Your task to perform on an android device: delete browsing data in the chrome app Image 0: 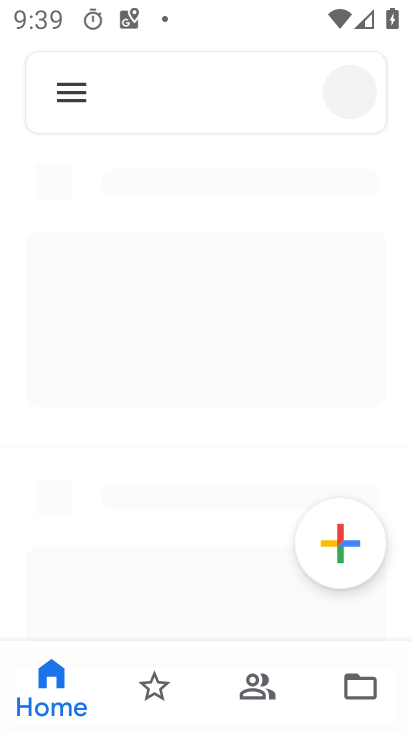
Step 0: click (250, 558)
Your task to perform on an android device: delete browsing data in the chrome app Image 1: 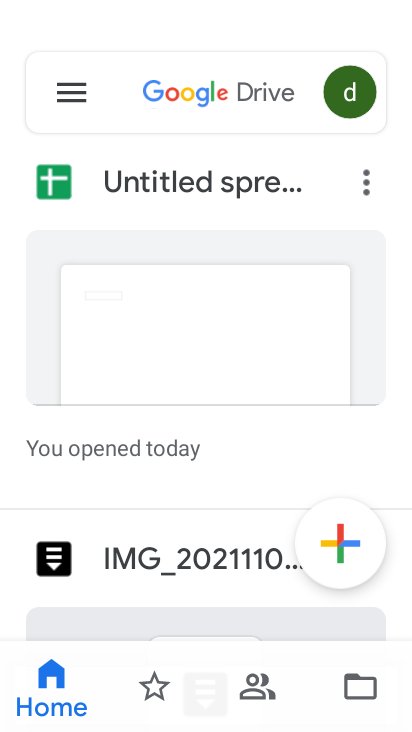
Step 1: press home button
Your task to perform on an android device: delete browsing data in the chrome app Image 2: 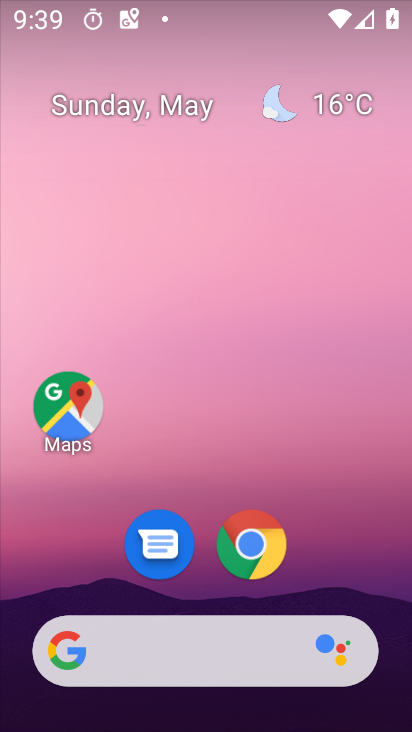
Step 2: click (245, 556)
Your task to perform on an android device: delete browsing data in the chrome app Image 3: 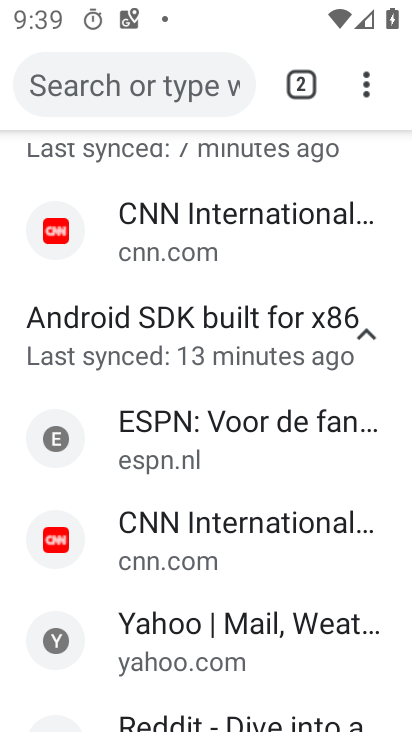
Step 3: click (367, 85)
Your task to perform on an android device: delete browsing data in the chrome app Image 4: 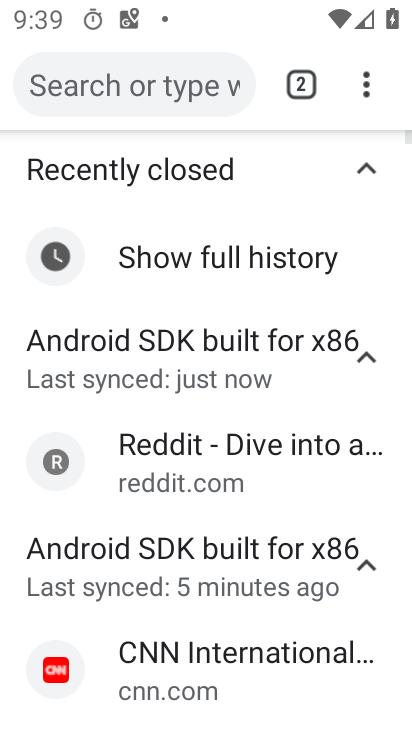
Step 4: click (369, 88)
Your task to perform on an android device: delete browsing data in the chrome app Image 5: 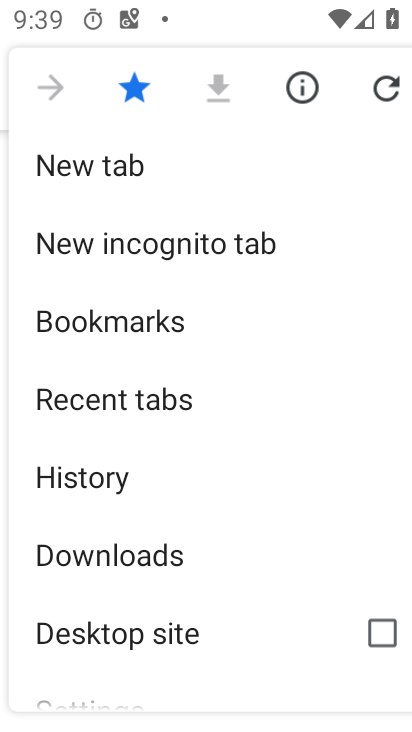
Step 5: click (110, 482)
Your task to perform on an android device: delete browsing data in the chrome app Image 6: 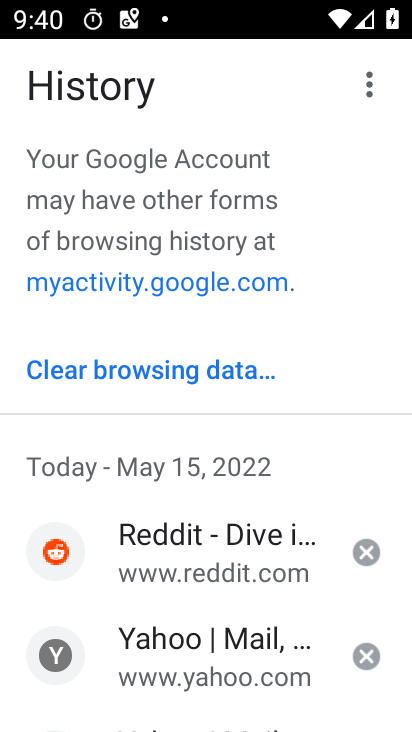
Step 6: click (124, 369)
Your task to perform on an android device: delete browsing data in the chrome app Image 7: 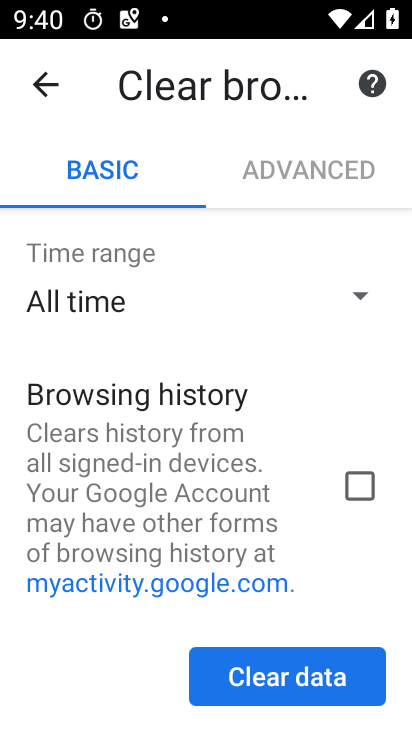
Step 7: click (362, 479)
Your task to perform on an android device: delete browsing data in the chrome app Image 8: 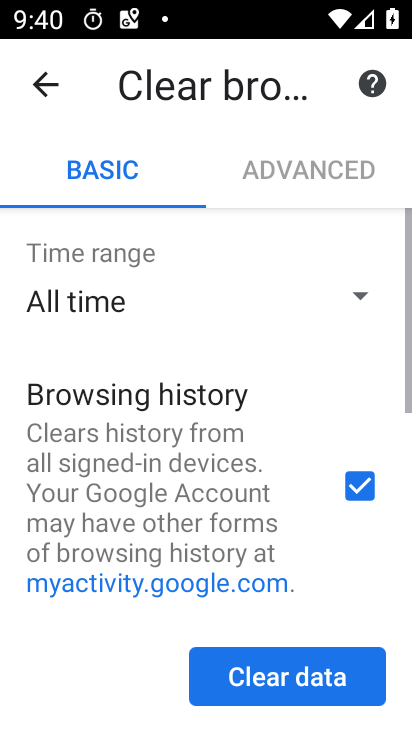
Step 8: click (303, 678)
Your task to perform on an android device: delete browsing data in the chrome app Image 9: 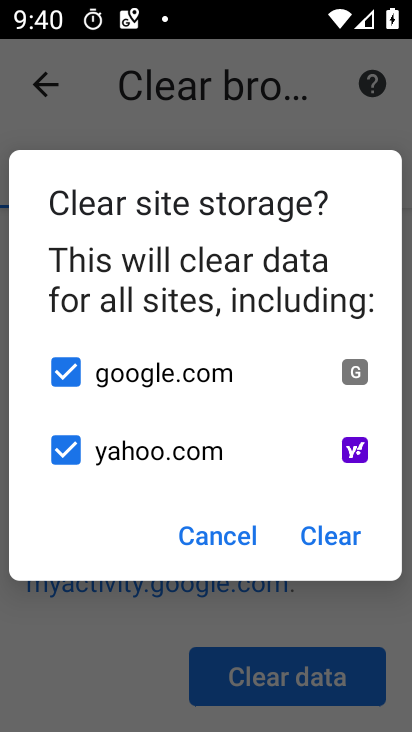
Step 9: click (359, 541)
Your task to perform on an android device: delete browsing data in the chrome app Image 10: 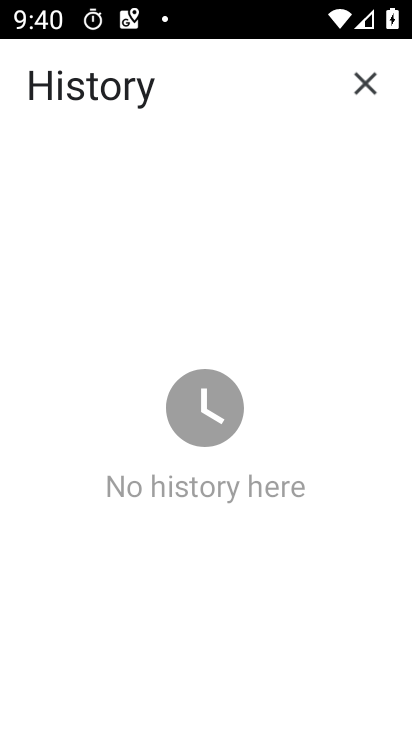
Step 10: task complete